Your task to perform on an android device: search for starred emails in the gmail app Image 0: 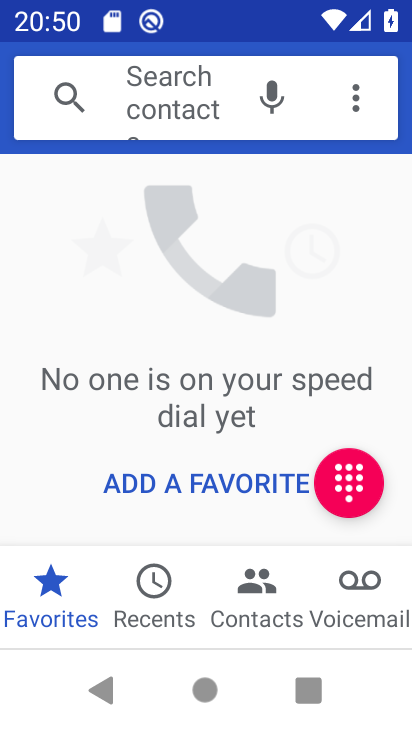
Step 0: press home button
Your task to perform on an android device: search for starred emails in the gmail app Image 1: 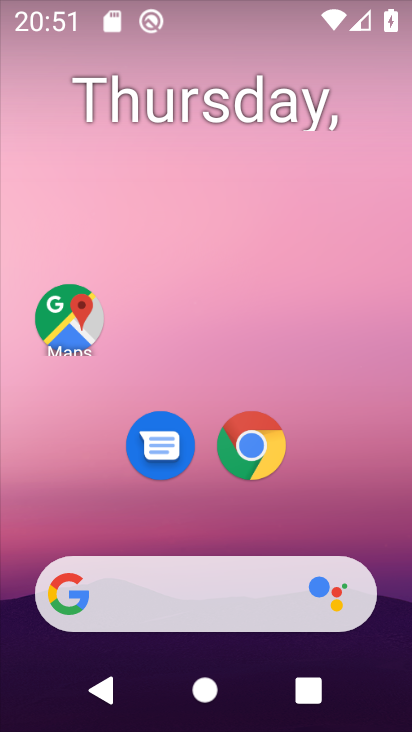
Step 1: drag from (317, 515) to (191, 162)
Your task to perform on an android device: search for starred emails in the gmail app Image 2: 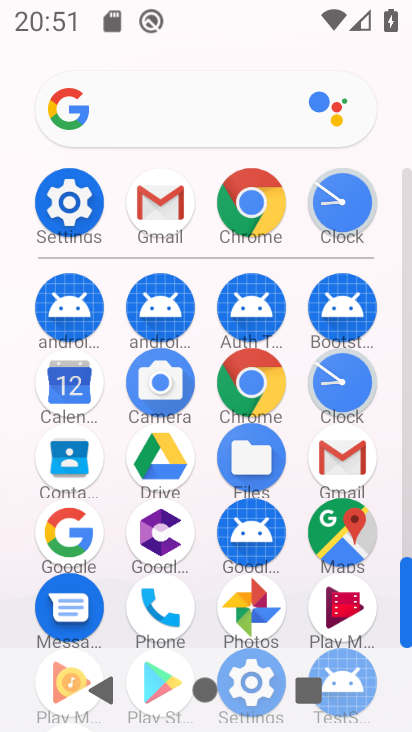
Step 2: click (168, 201)
Your task to perform on an android device: search for starred emails in the gmail app Image 3: 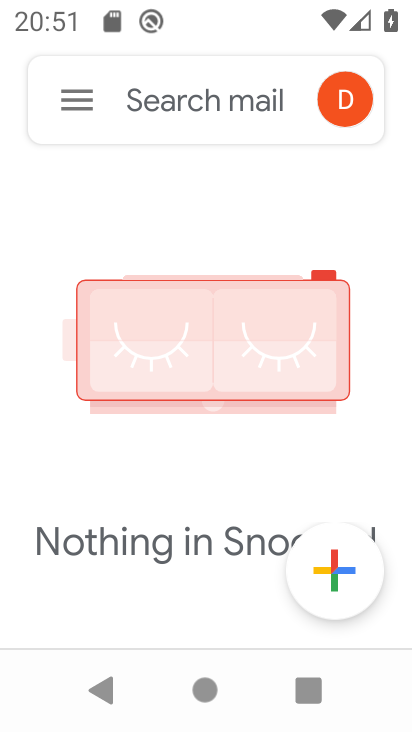
Step 3: click (83, 107)
Your task to perform on an android device: search for starred emails in the gmail app Image 4: 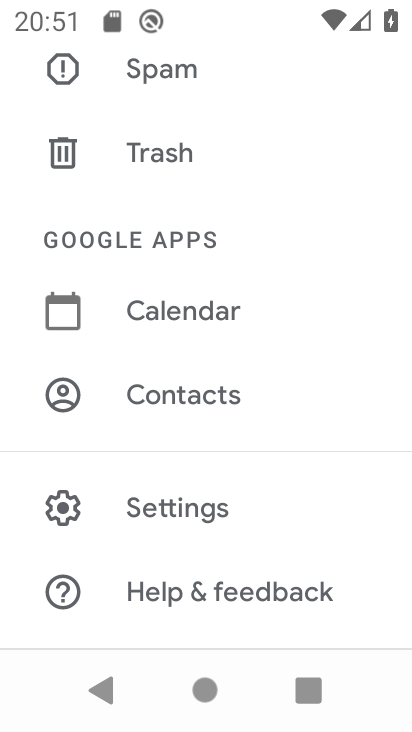
Step 4: drag from (197, 202) to (201, 528)
Your task to perform on an android device: search for starred emails in the gmail app Image 5: 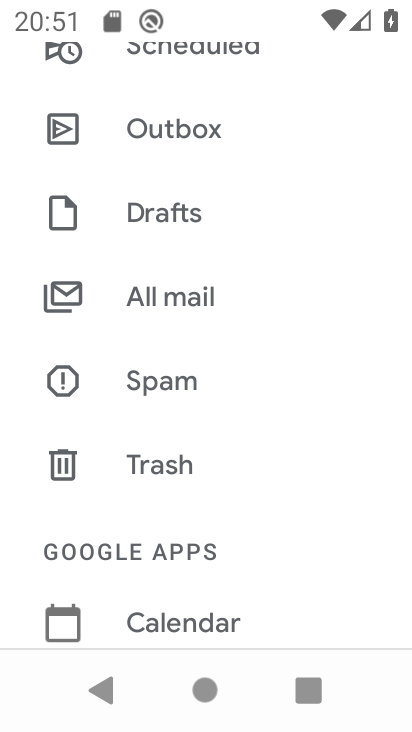
Step 5: drag from (248, 215) to (253, 574)
Your task to perform on an android device: search for starred emails in the gmail app Image 6: 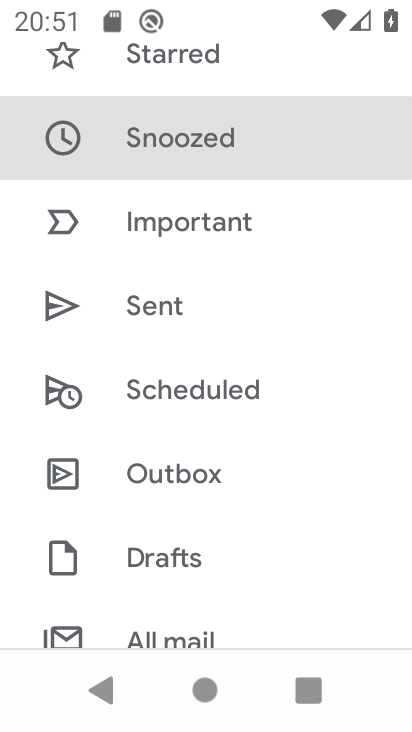
Step 6: drag from (278, 207) to (276, 459)
Your task to perform on an android device: search for starred emails in the gmail app Image 7: 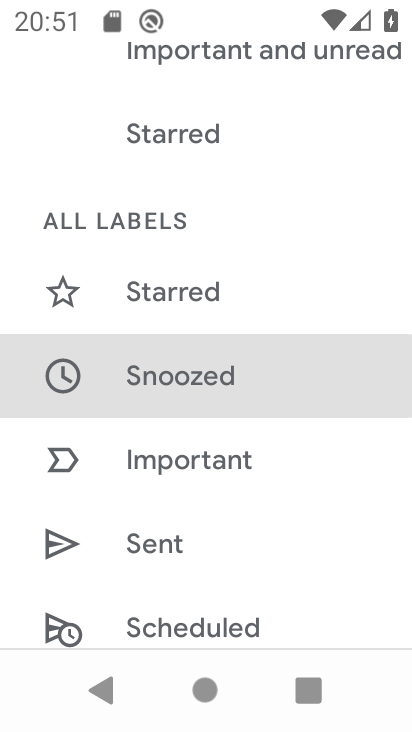
Step 7: click (186, 294)
Your task to perform on an android device: search for starred emails in the gmail app Image 8: 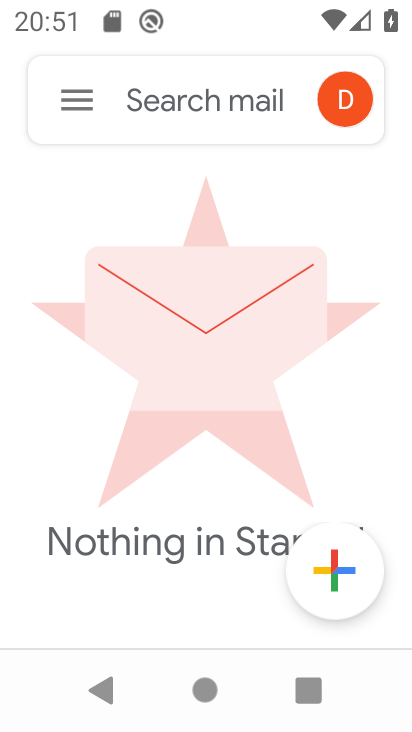
Step 8: task complete